Your task to perform on an android device: open app "Firefox Browser" Image 0: 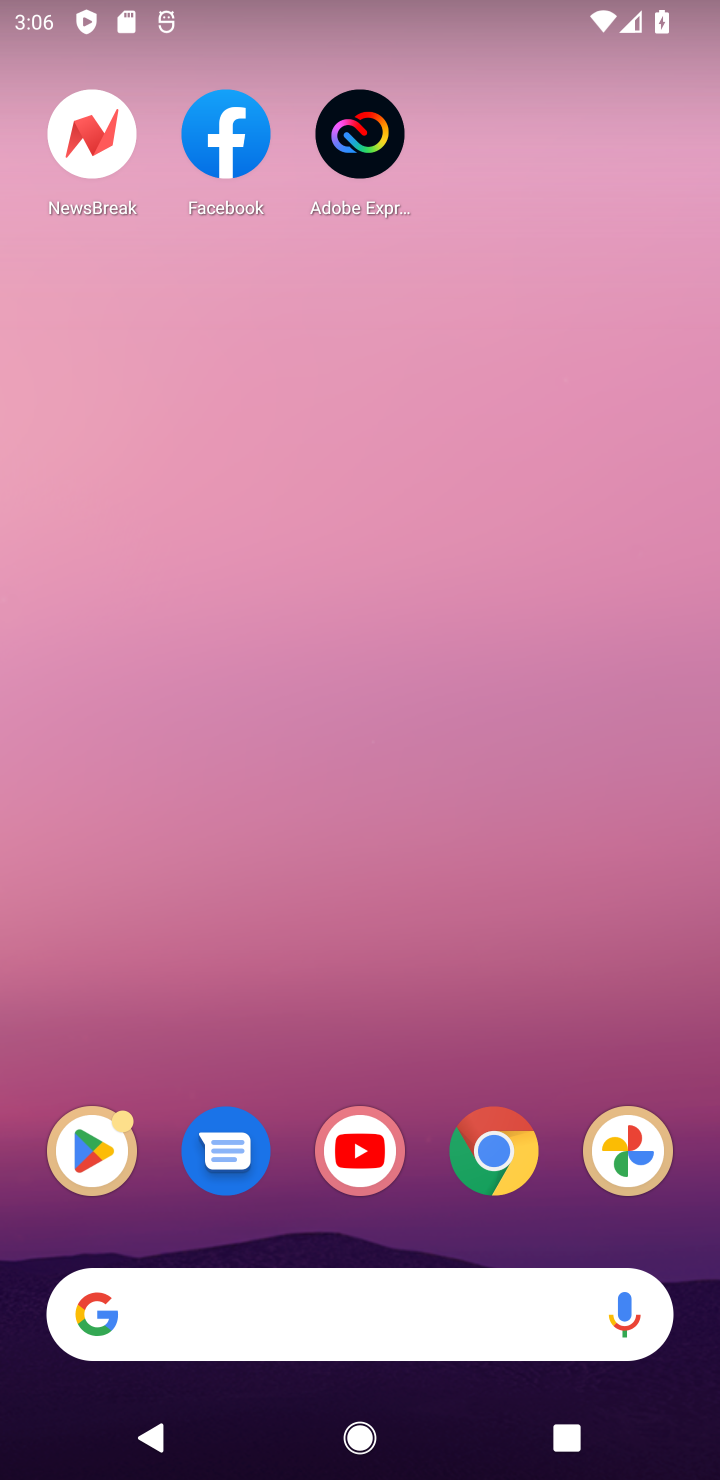
Step 0: drag from (398, 1463) to (398, 266)
Your task to perform on an android device: open app "Firefox Browser" Image 1: 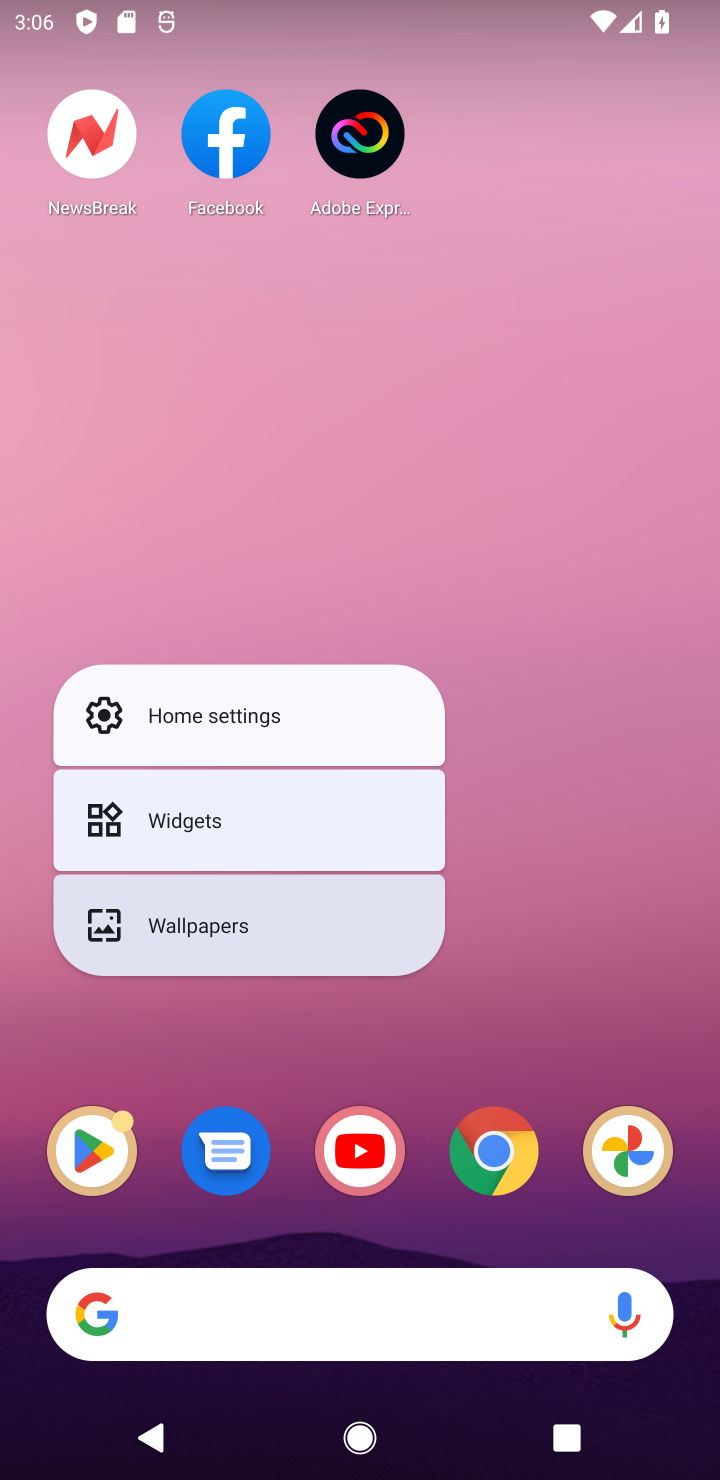
Step 1: click (513, 603)
Your task to perform on an android device: open app "Firefox Browser" Image 2: 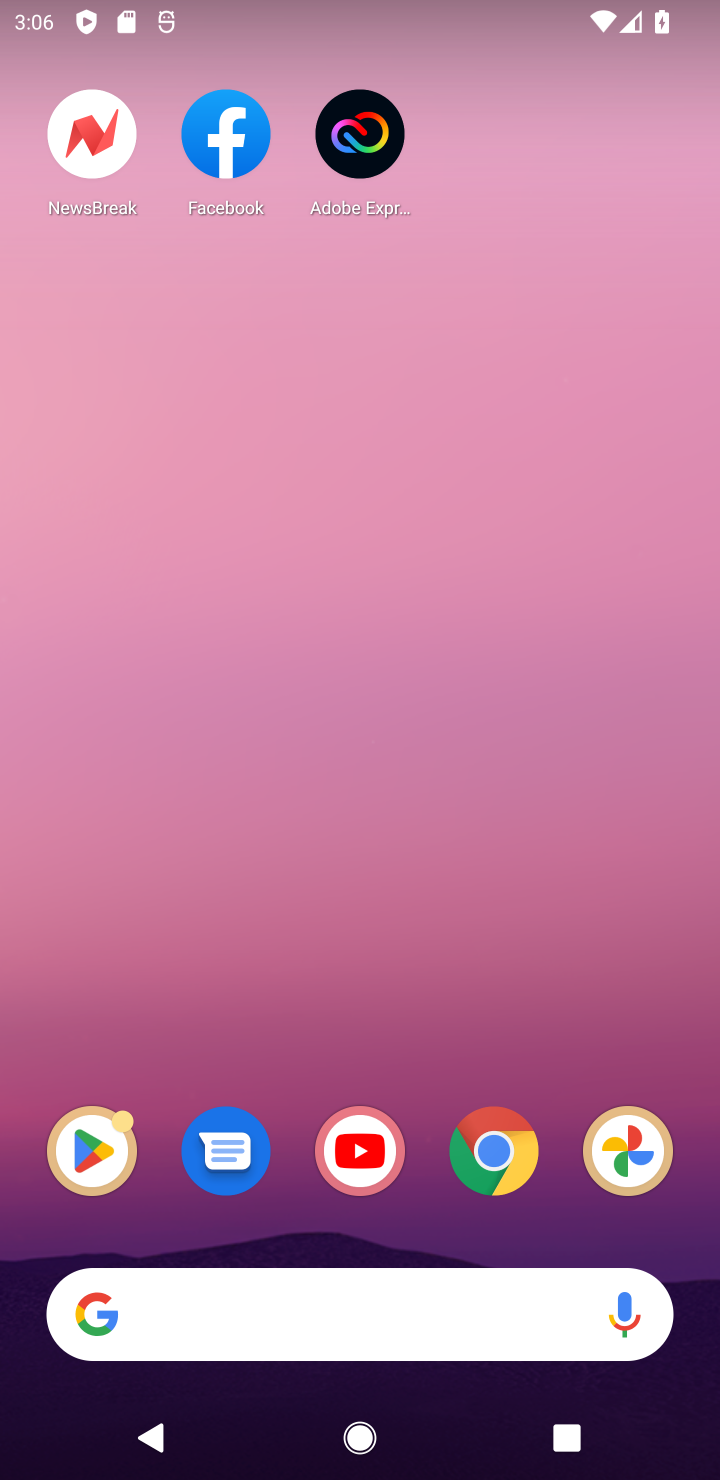
Step 2: drag from (419, 1425) to (383, 301)
Your task to perform on an android device: open app "Firefox Browser" Image 3: 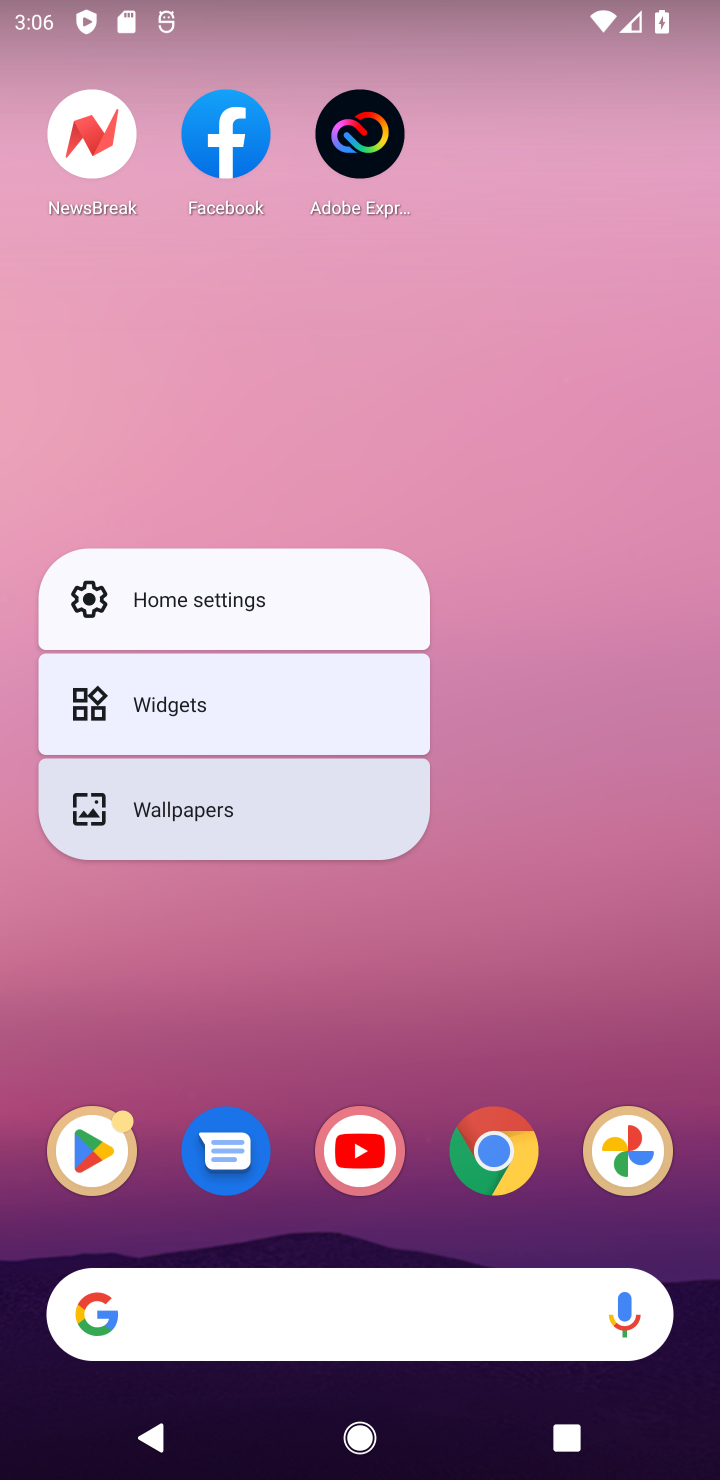
Step 3: click (545, 738)
Your task to perform on an android device: open app "Firefox Browser" Image 4: 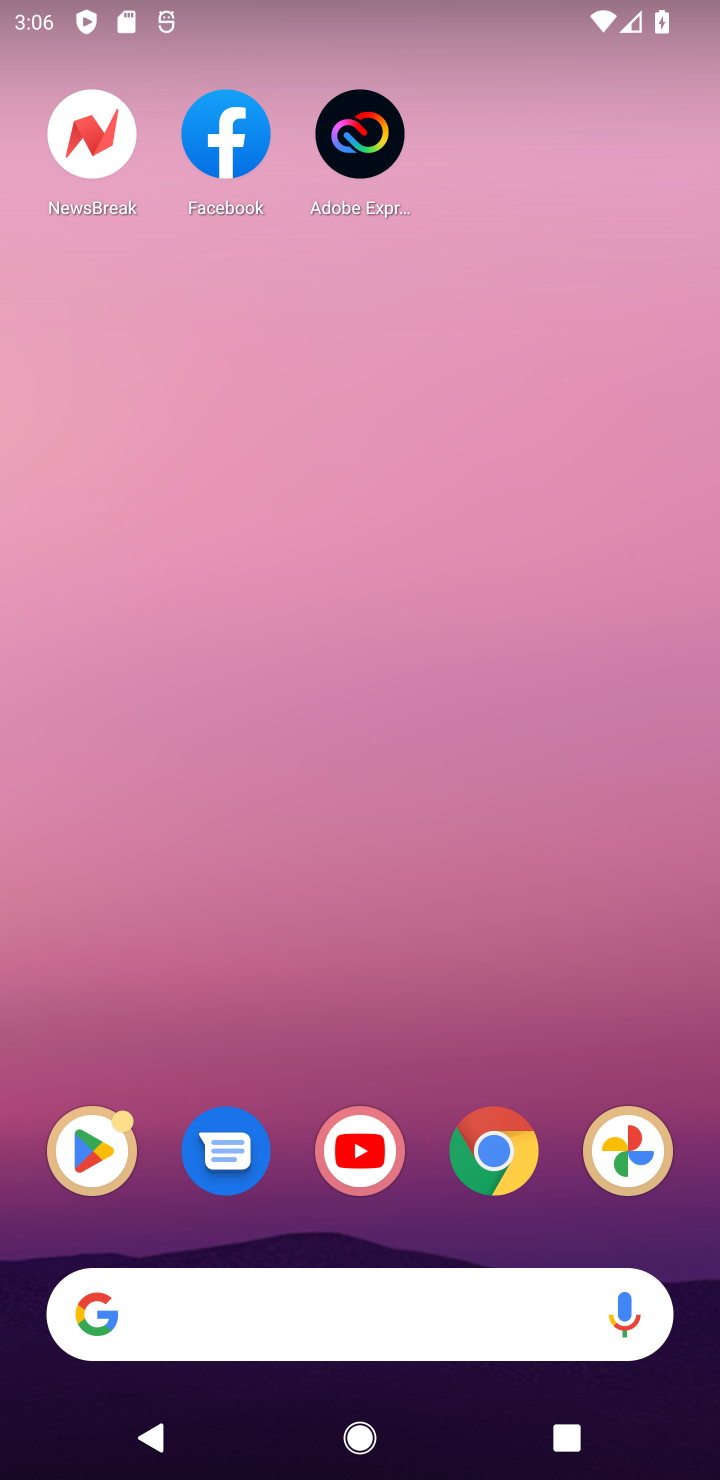
Step 4: drag from (418, 1363) to (423, 187)
Your task to perform on an android device: open app "Firefox Browser" Image 5: 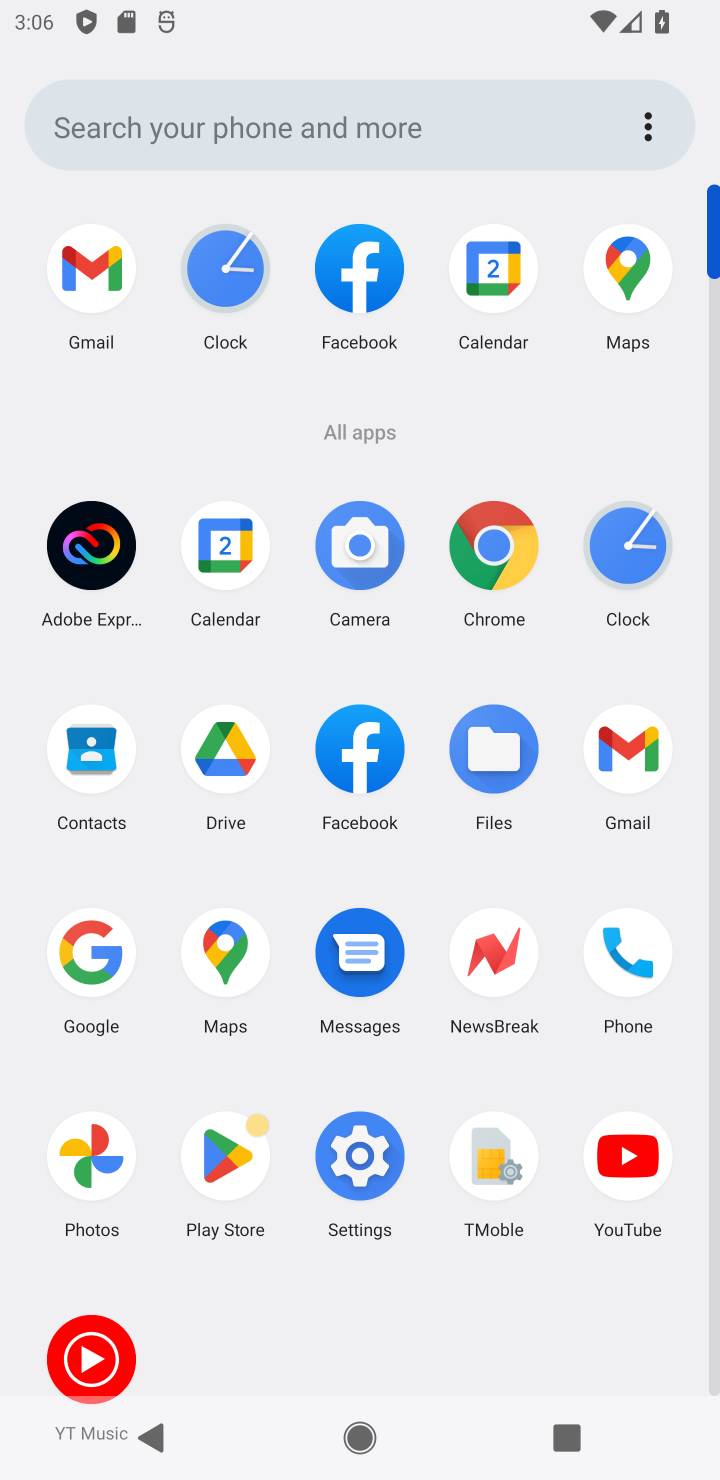
Step 5: click (228, 1154)
Your task to perform on an android device: open app "Firefox Browser" Image 6: 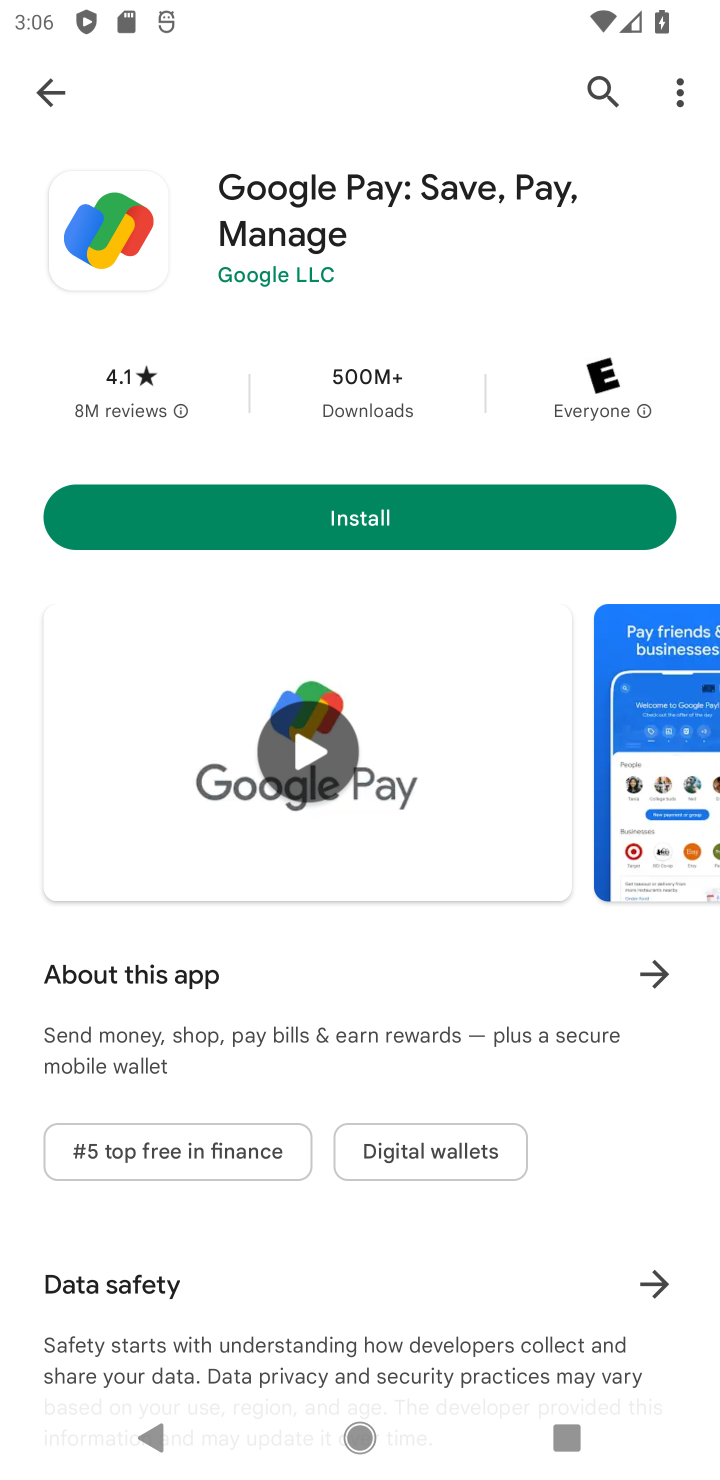
Step 6: click (608, 90)
Your task to perform on an android device: open app "Firefox Browser" Image 7: 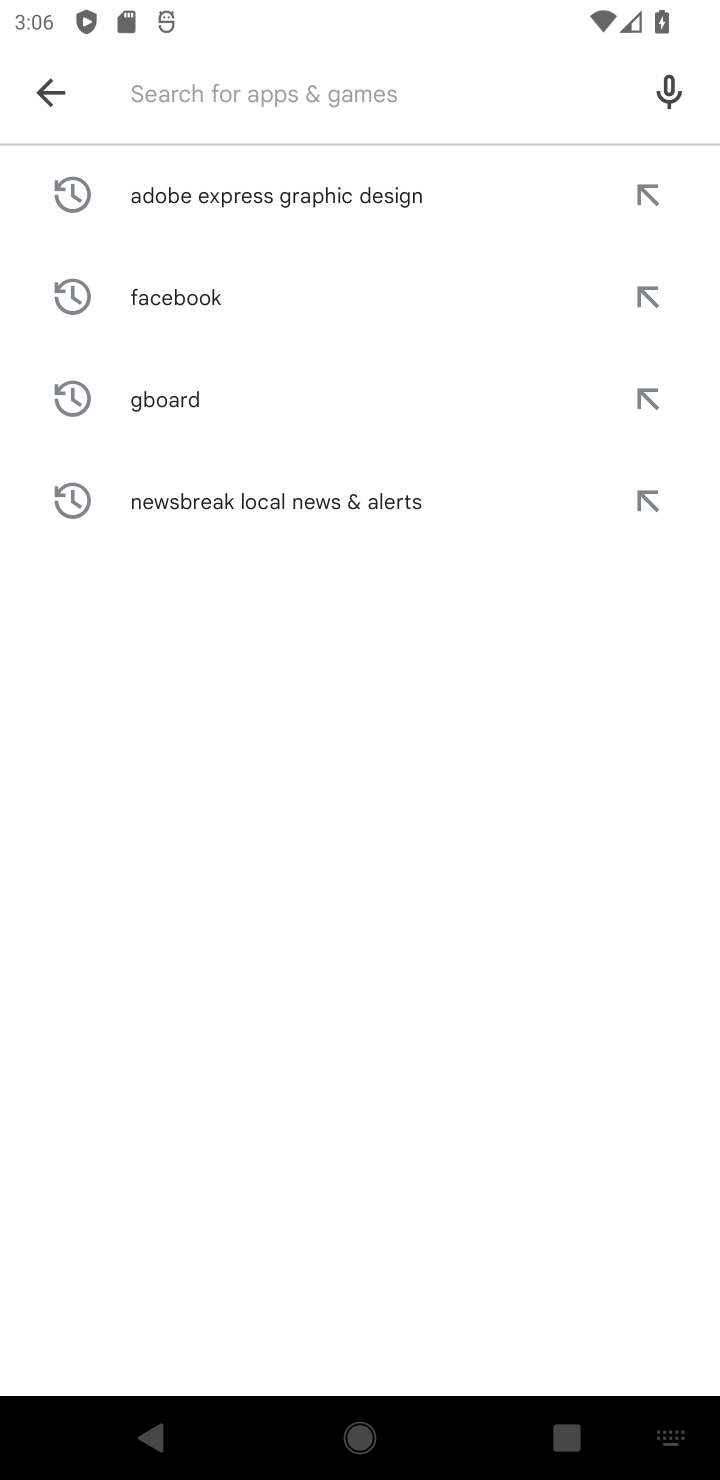
Step 7: type "Firefox Browser"
Your task to perform on an android device: open app "Firefox Browser" Image 8: 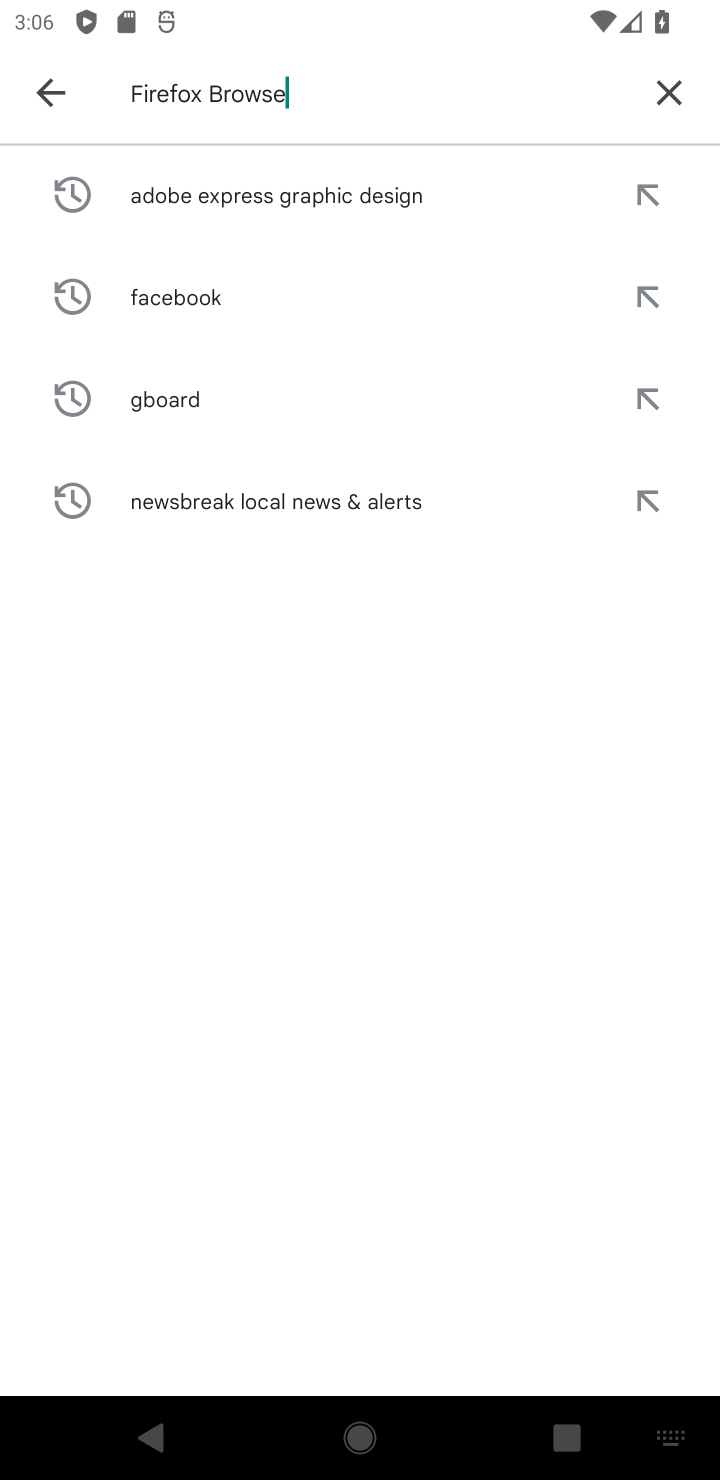
Step 8: type ""
Your task to perform on an android device: open app "Firefox Browser" Image 9: 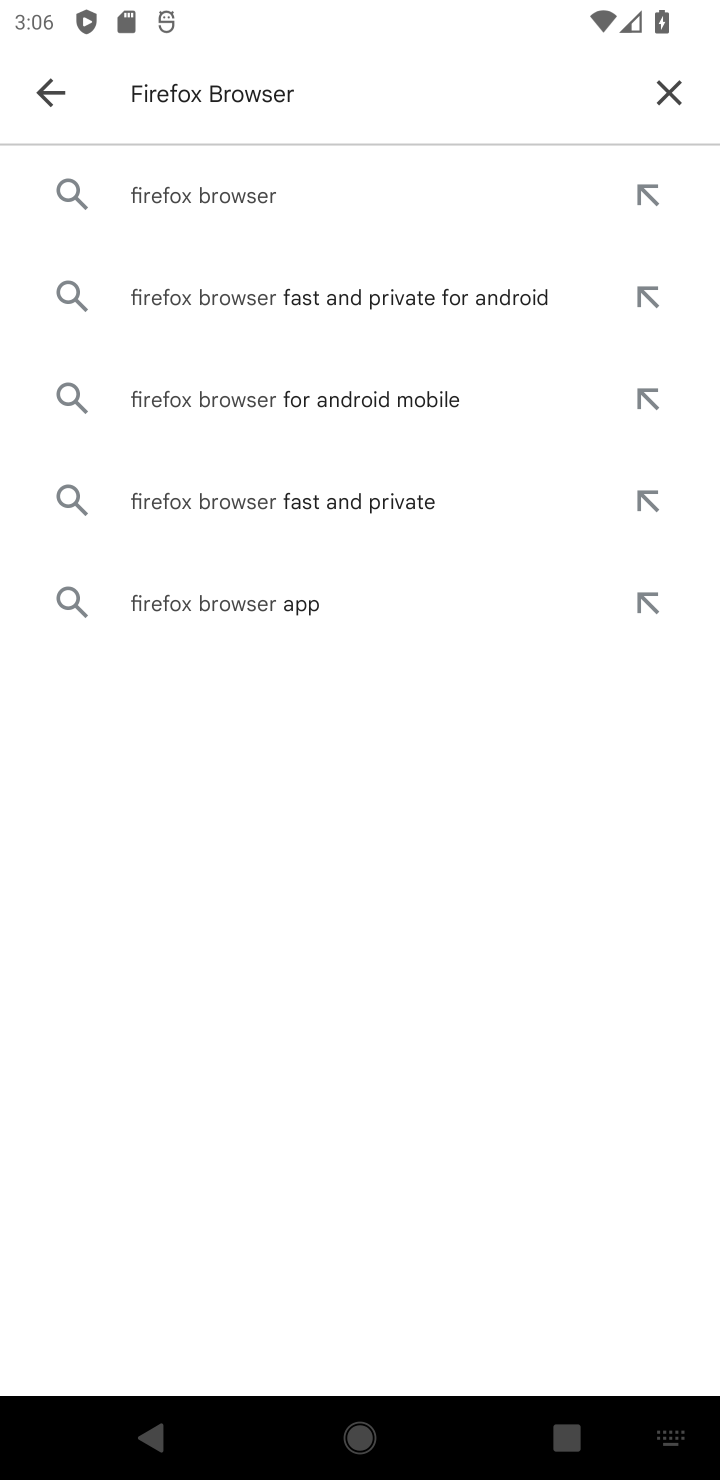
Step 9: click (247, 192)
Your task to perform on an android device: open app "Firefox Browser" Image 10: 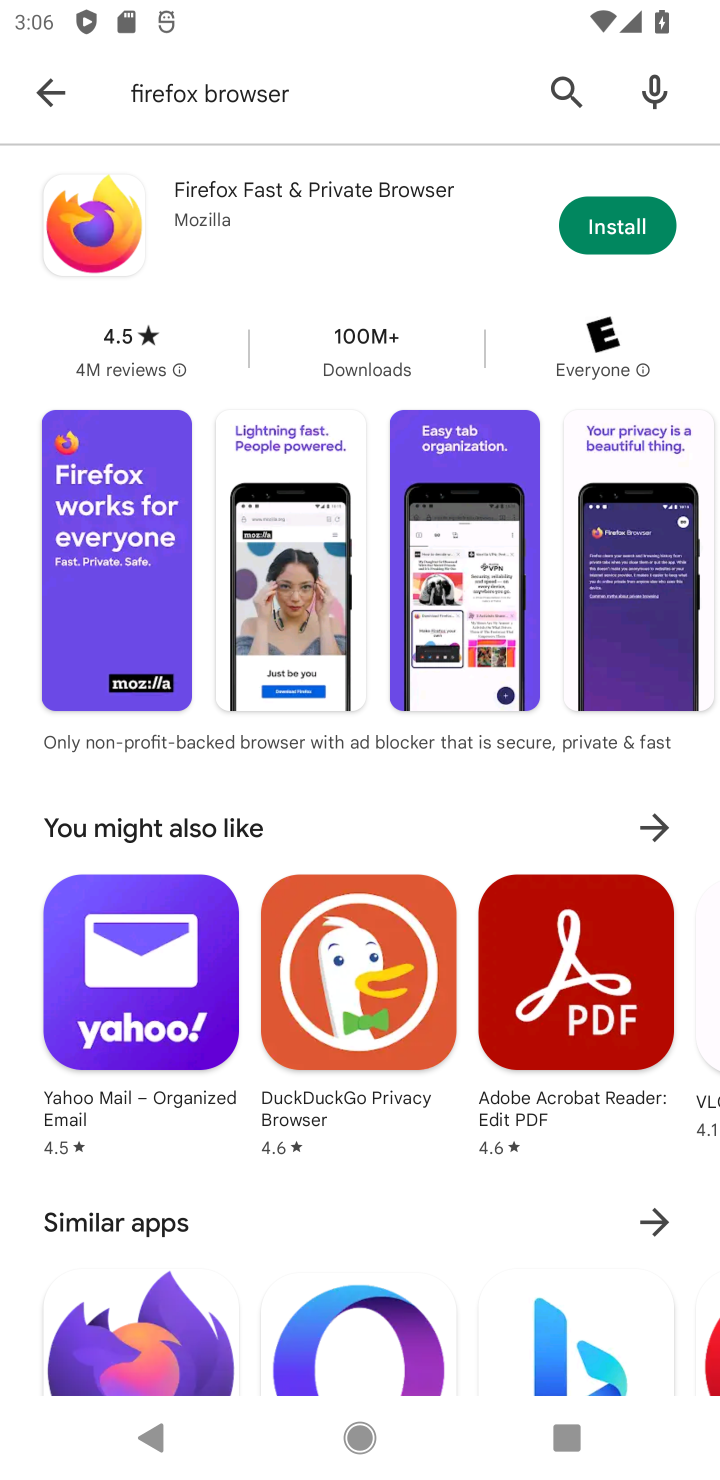
Step 10: click (374, 187)
Your task to perform on an android device: open app "Firefox Browser" Image 11: 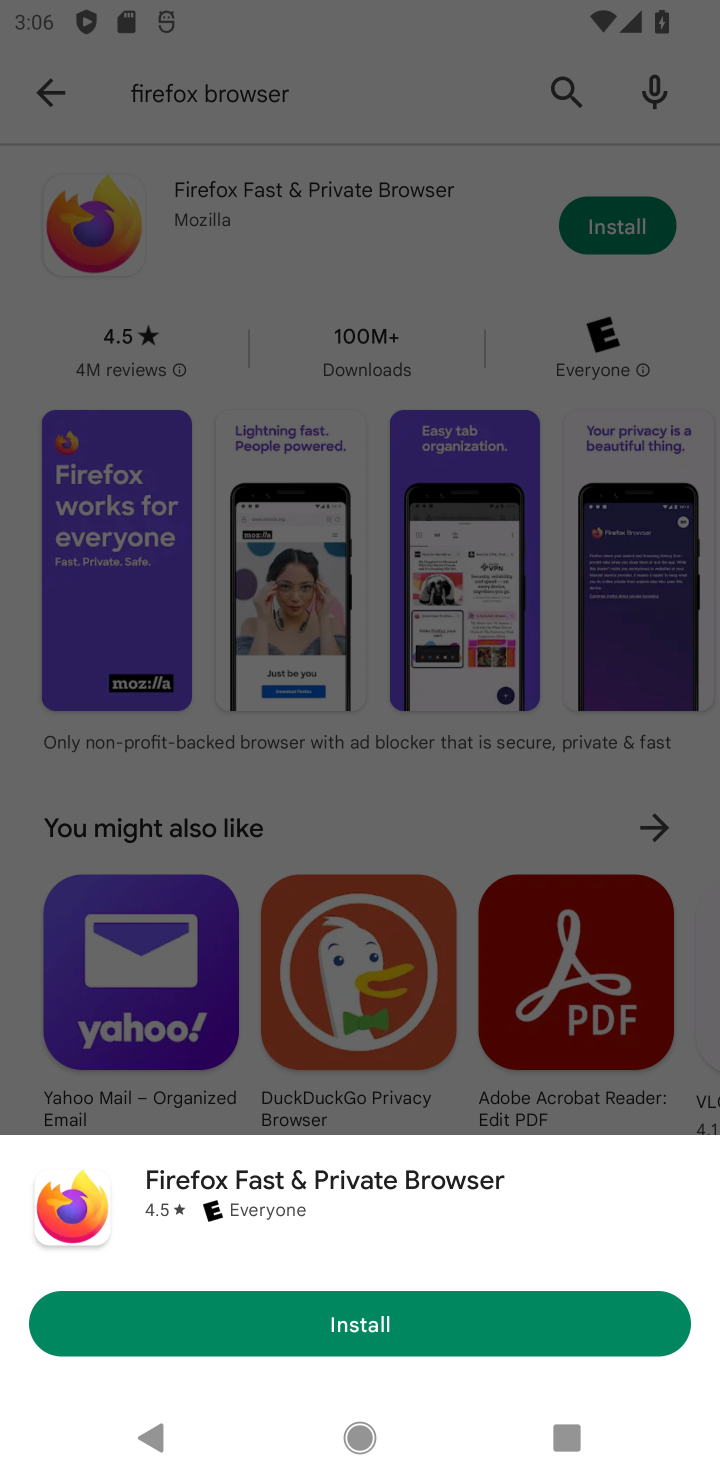
Step 11: task complete